Your task to perform on an android device: turn off wifi Image 0: 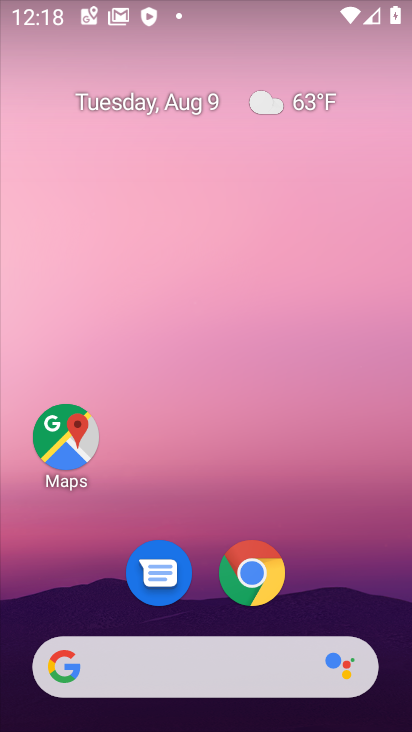
Step 0: drag from (146, 640) to (133, 128)
Your task to perform on an android device: turn off wifi Image 1: 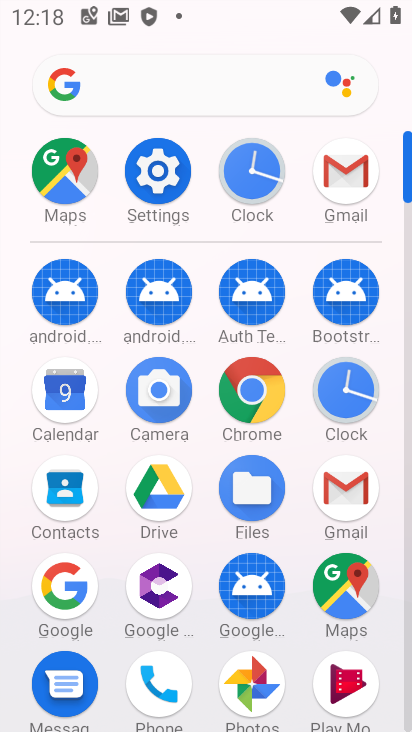
Step 1: click (157, 174)
Your task to perform on an android device: turn off wifi Image 2: 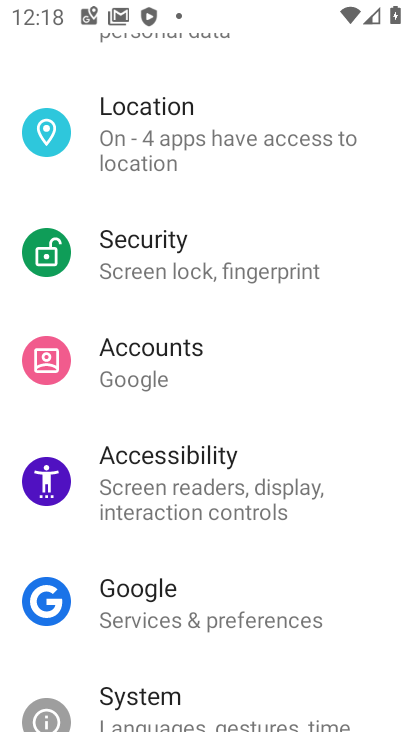
Step 2: drag from (159, 87) to (314, 523)
Your task to perform on an android device: turn off wifi Image 3: 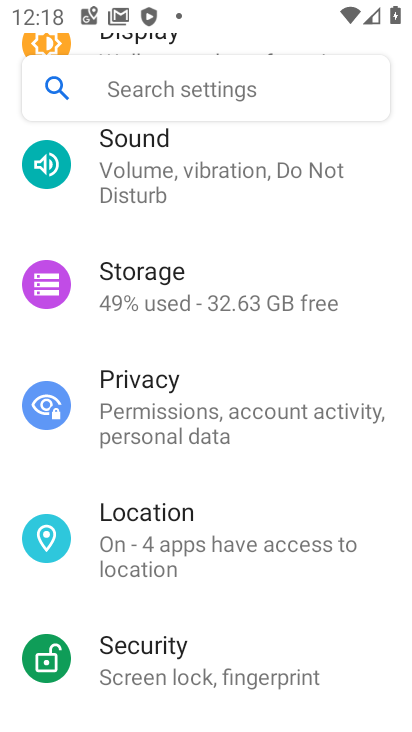
Step 3: drag from (224, 140) to (335, 557)
Your task to perform on an android device: turn off wifi Image 4: 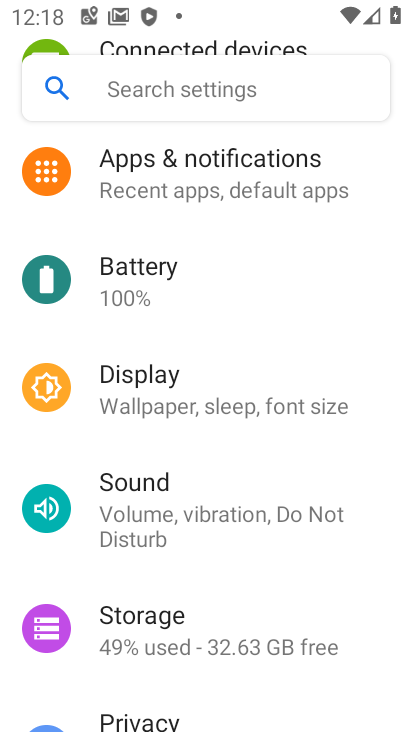
Step 4: drag from (194, 136) to (282, 616)
Your task to perform on an android device: turn off wifi Image 5: 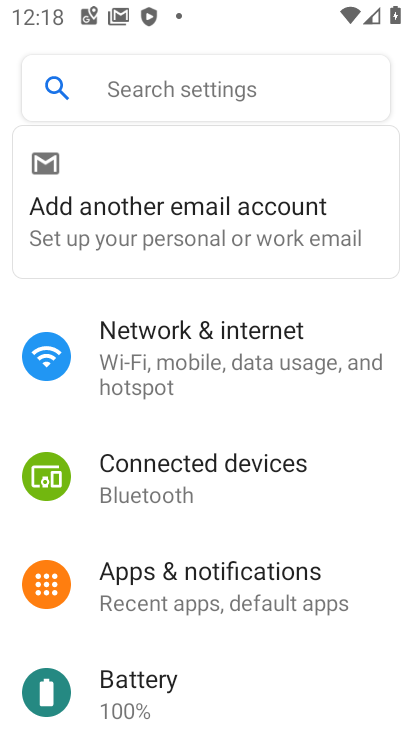
Step 5: click (188, 349)
Your task to perform on an android device: turn off wifi Image 6: 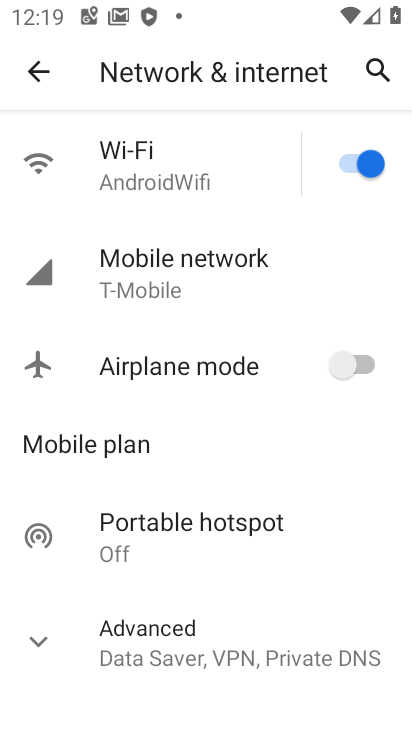
Step 6: click (352, 163)
Your task to perform on an android device: turn off wifi Image 7: 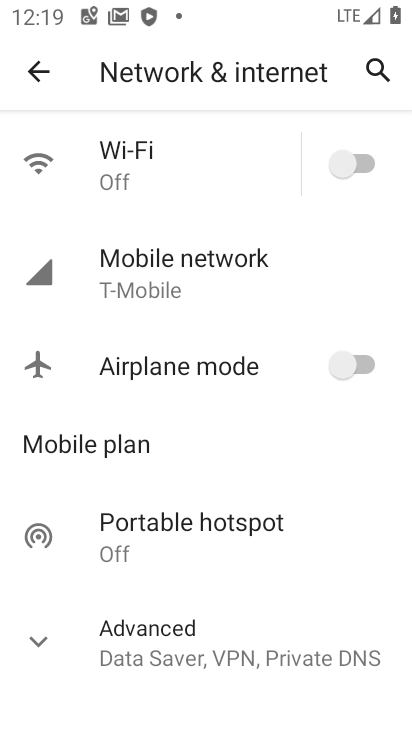
Step 7: task complete